Your task to perform on an android device: make emails show in primary in the gmail app Image 0: 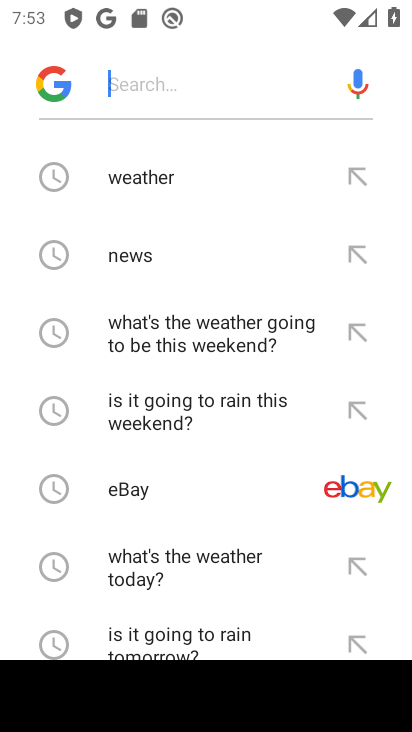
Step 0: press home button
Your task to perform on an android device: make emails show in primary in the gmail app Image 1: 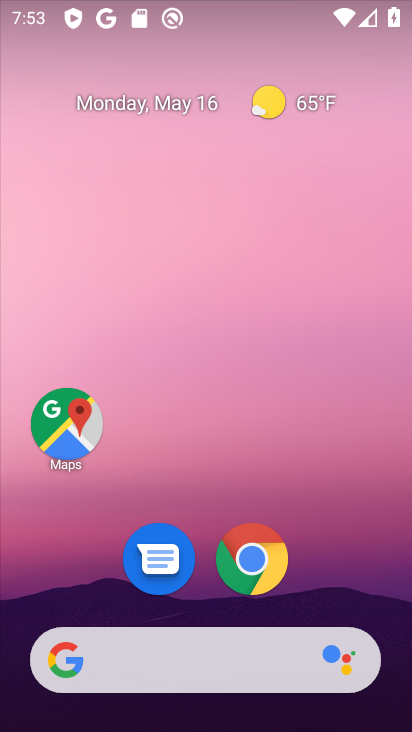
Step 1: drag from (229, 513) to (309, 45)
Your task to perform on an android device: make emails show in primary in the gmail app Image 2: 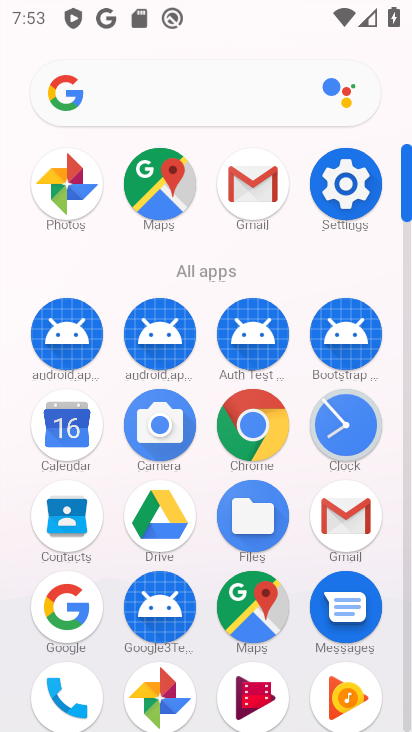
Step 2: click (253, 180)
Your task to perform on an android device: make emails show in primary in the gmail app Image 3: 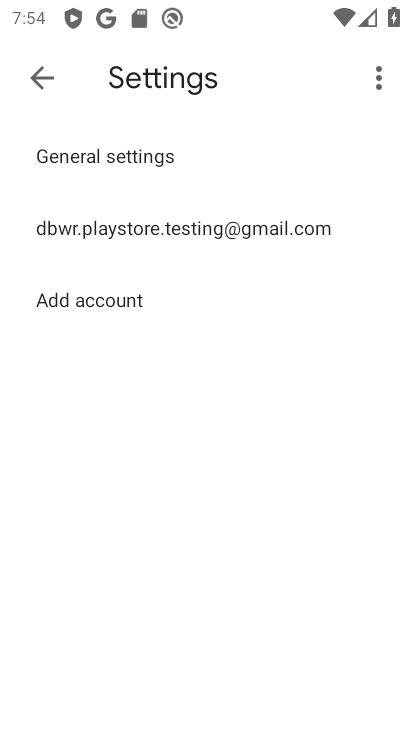
Step 3: click (216, 228)
Your task to perform on an android device: make emails show in primary in the gmail app Image 4: 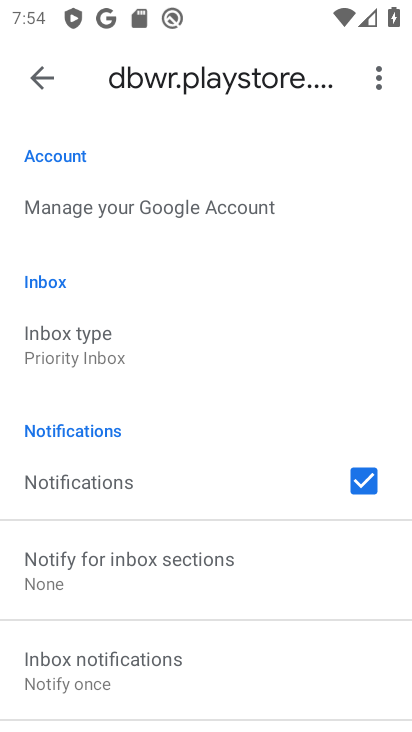
Step 4: task complete